Your task to perform on an android device: turn on airplane mode Image 0: 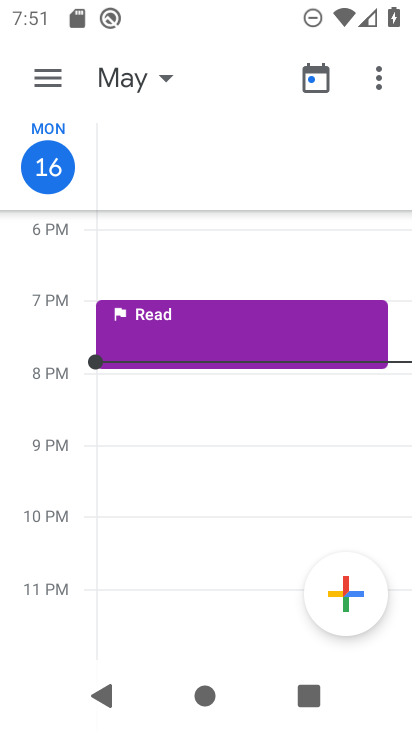
Step 0: press home button
Your task to perform on an android device: turn on airplane mode Image 1: 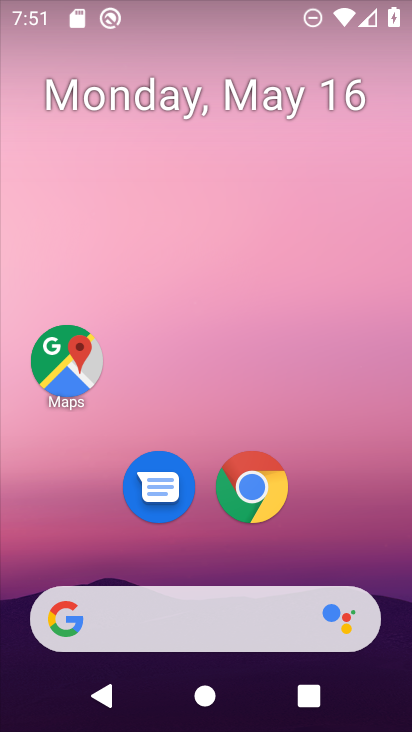
Step 1: drag from (324, 516) to (379, 101)
Your task to perform on an android device: turn on airplane mode Image 2: 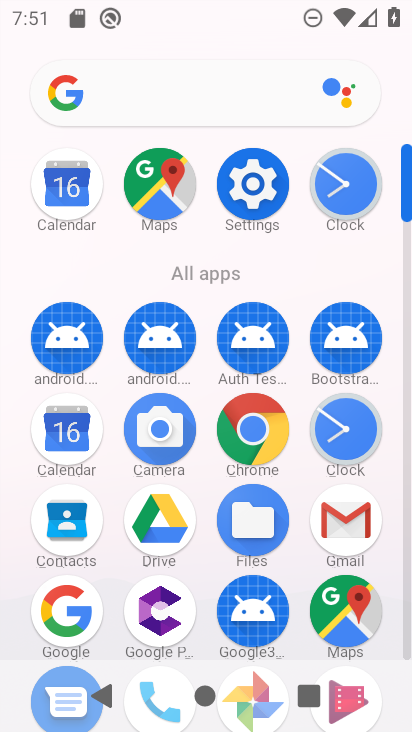
Step 2: click (269, 196)
Your task to perform on an android device: turn on airplane mode Image 3: 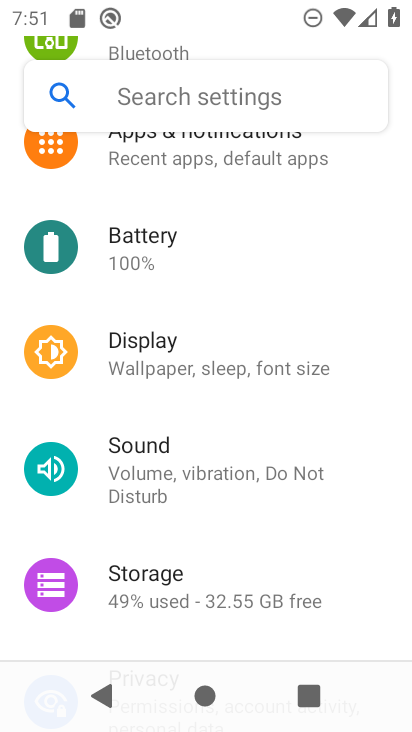
Step 3: drag from (267, 191) to (200, 603)
Your task to perform on an android device: turn on airplane mode Image 4: 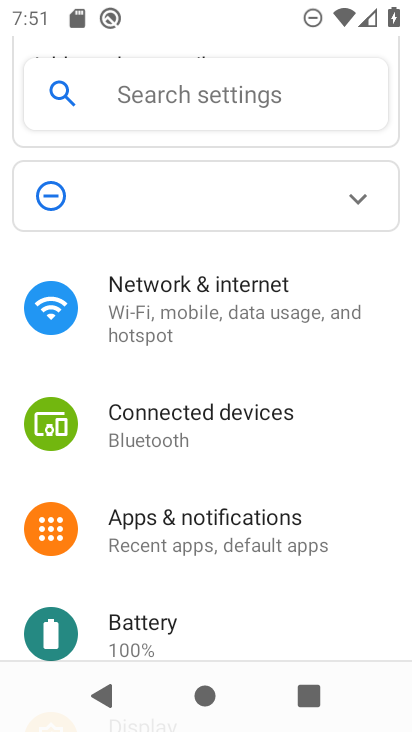
Step 4: click (247, 313)
Your task to perform on an android device: turn on airplane mode Image 5: 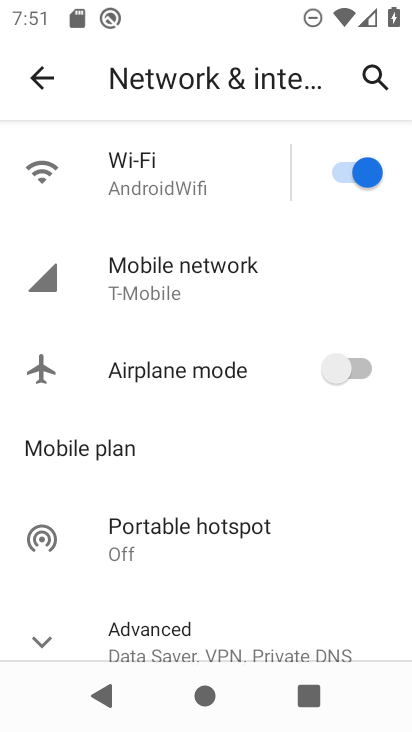
Step 5: click (339, 363)
Your task to perform on an android device: turn on airplane mode Image 6: 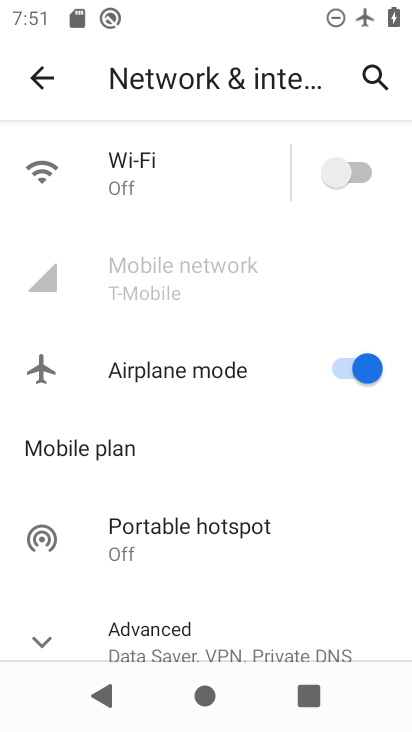
Step 6: task complete